Your task to perform on an android device: Open Google Maps and go to "Timeline" Image 0: 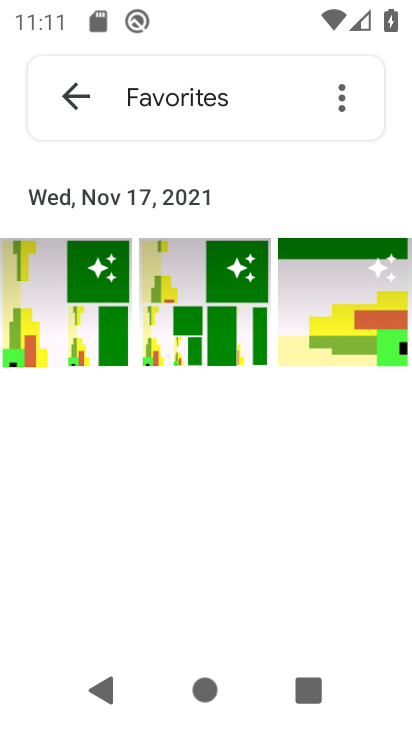
Step 0: press home button
Your task to perform on an android device: Open Google Maps and go to "Timeline" Image 1: 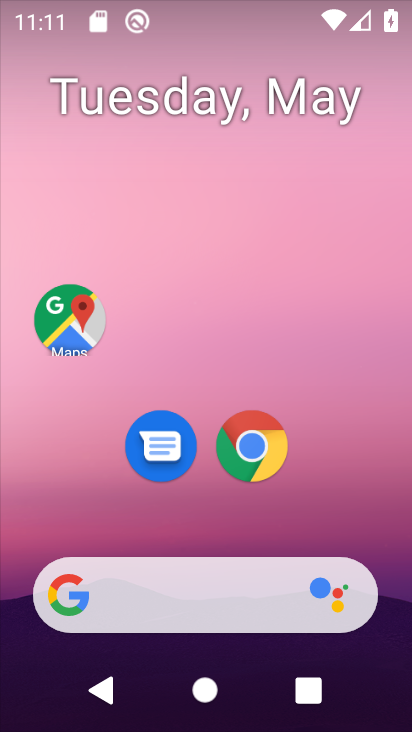
Step 1: click (65, 325)
Your task to perform on an android device: Open Google Maps and go to "Timeline" Image 2: 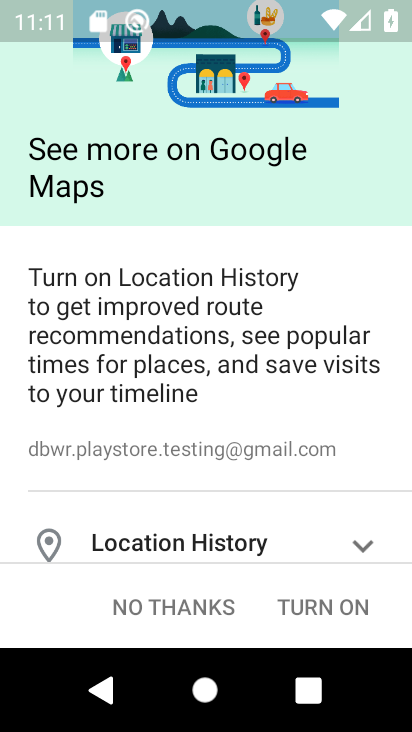
Step 2: click (168, 604)
Your task to perform on an android device: Open Google Maps and go to "Timeline" Image 3: 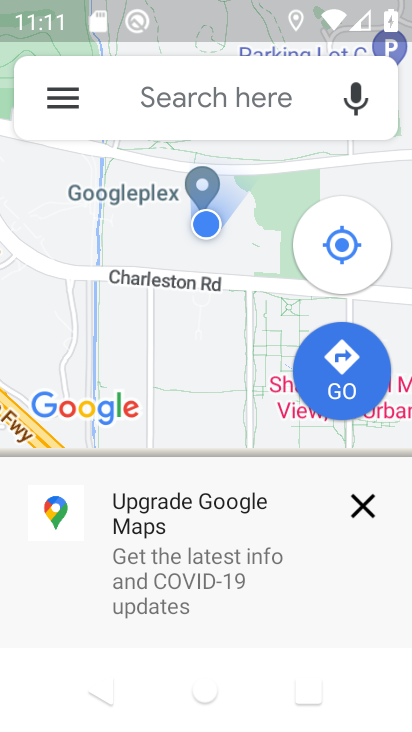
Step 3: click (63, 110)
Your task to perform on an android device: Open Google Maps and go to "Timeline" Image 4: 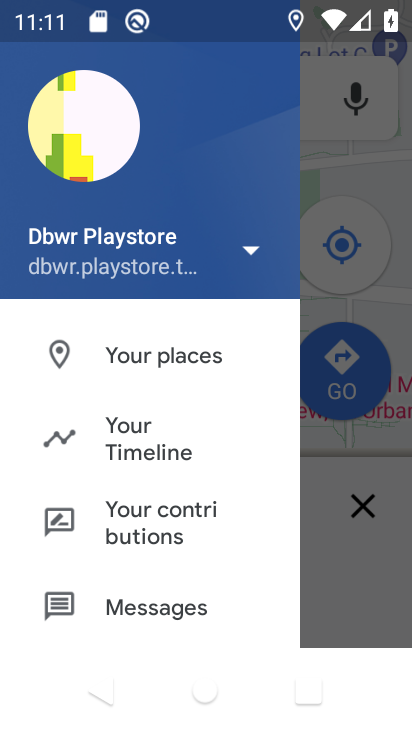
Step 4: click (144, 453)
Your task to perform on an android device: Open Google Maps and go to "Timeline" Image 5: 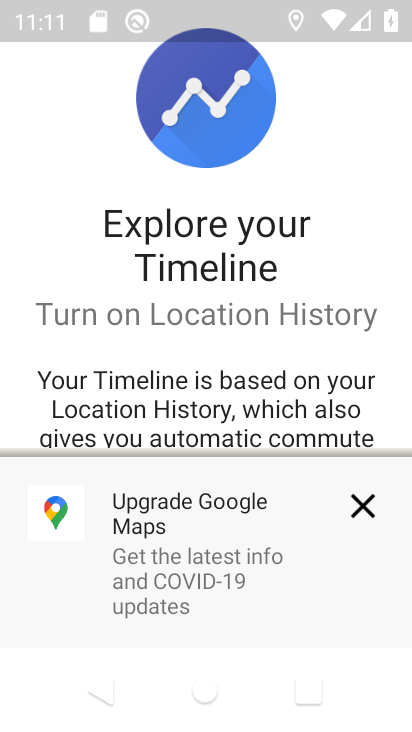
Step 5: click (362, 503)
Your task to perform on an android device: Open Google Maps and go to "Timeline" Image 6: 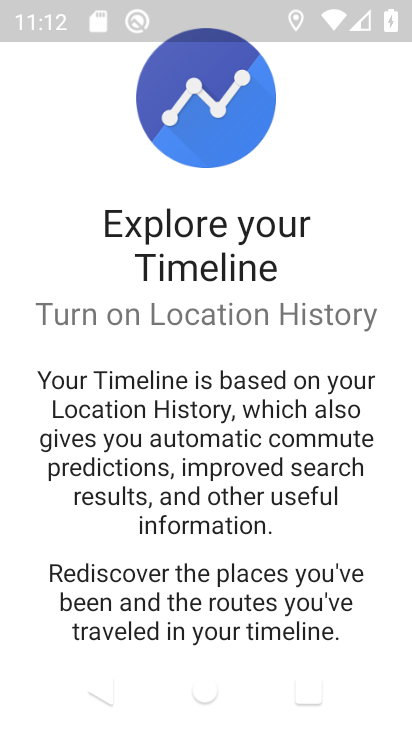
Step 6: drag from (215, 610) to (280, 341)
Your task to perform on an android device: Open Google Maps and go to "Timeline" Image 7: 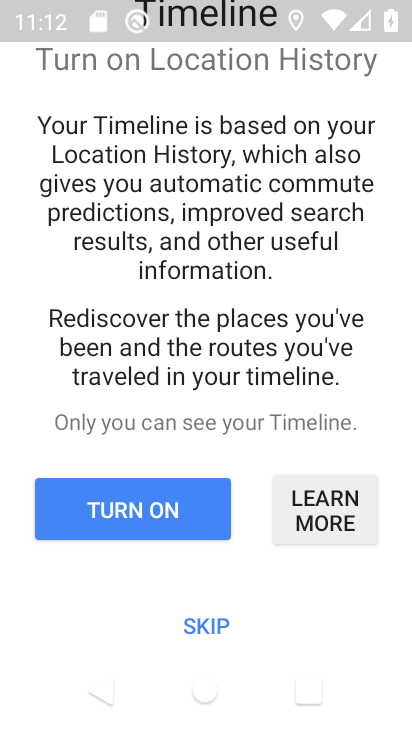
Step 7: click (187, 512)
Your task to perform on an android device: Open Google Maps and go to "Timeline" Image 8: 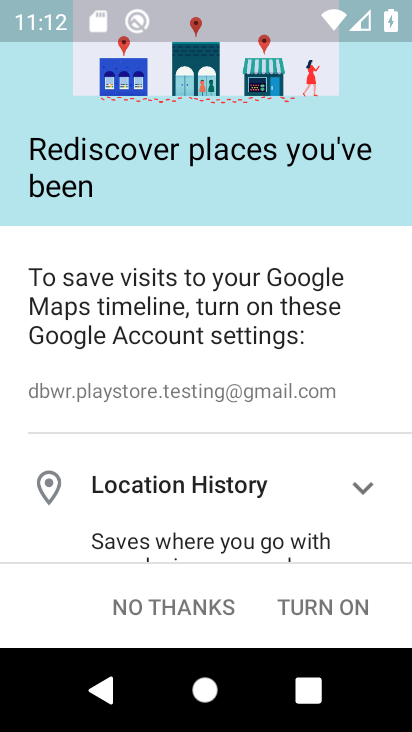
Step 8: drag from (272, 528) to (325, 264)
Your task to perform on an android device: Open Google Maps and go to "Timeline" Image 9: 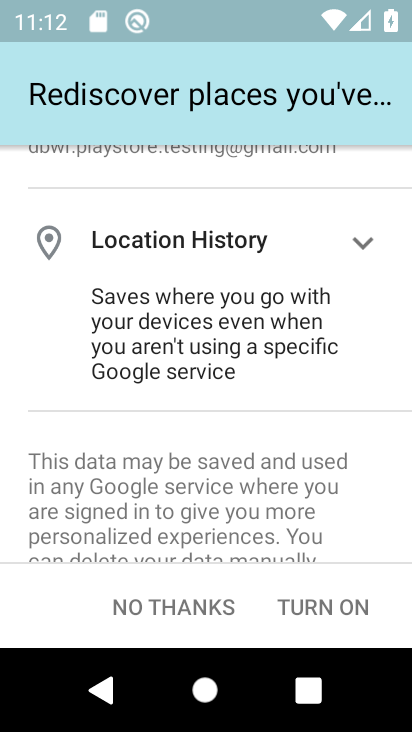
Step 9: click (194, 608)
Your task to perform on an android device: Open Google Maps and go to "Timeline" Image 10: 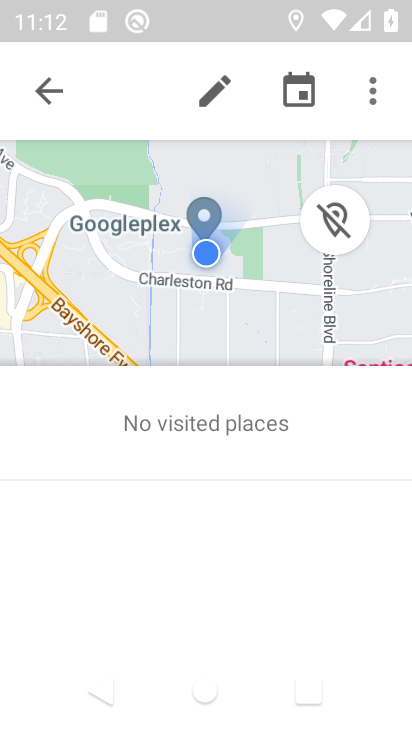
Step 10: task complete